Your task to perform on an android device: change the clock style Image 0: 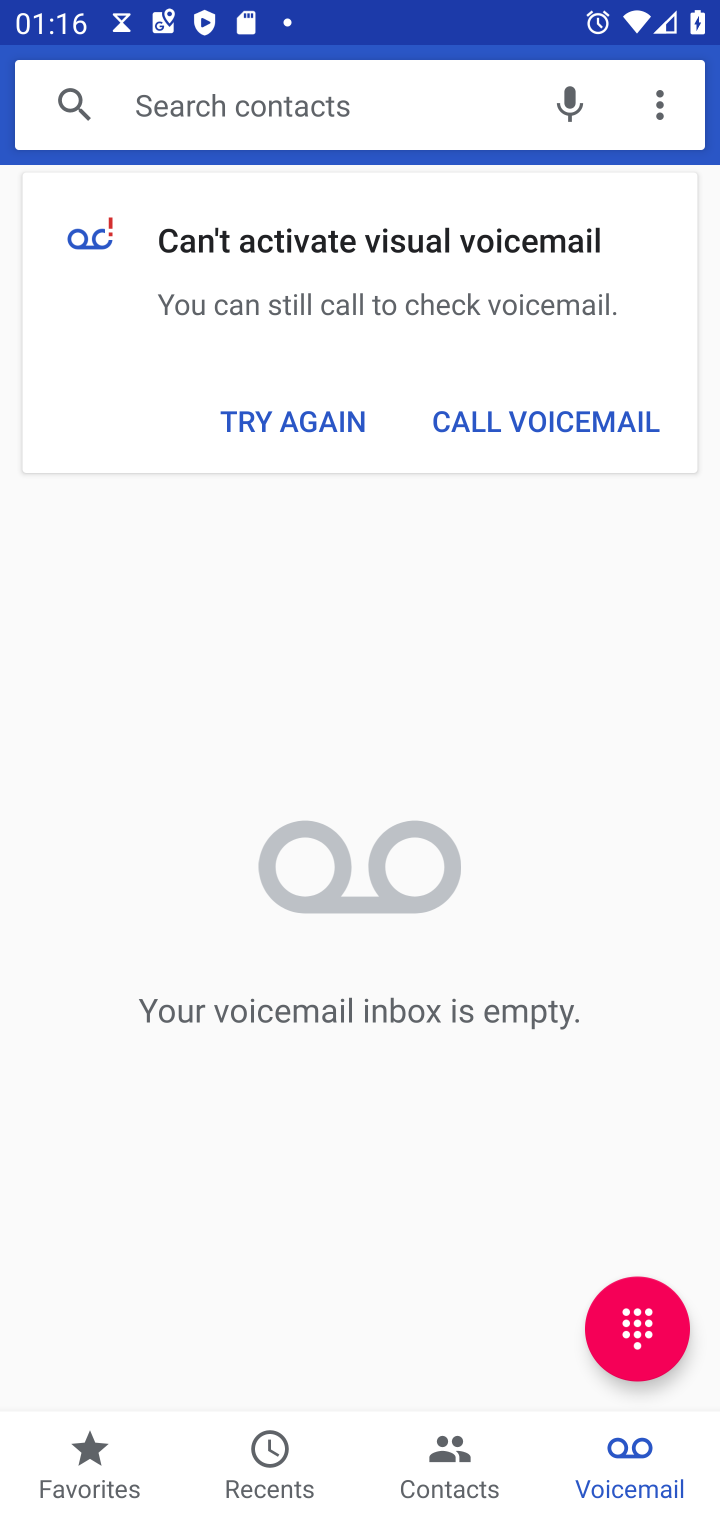
Step 0: press home button
Your task to perform on an android device: change the clock style Image 1: 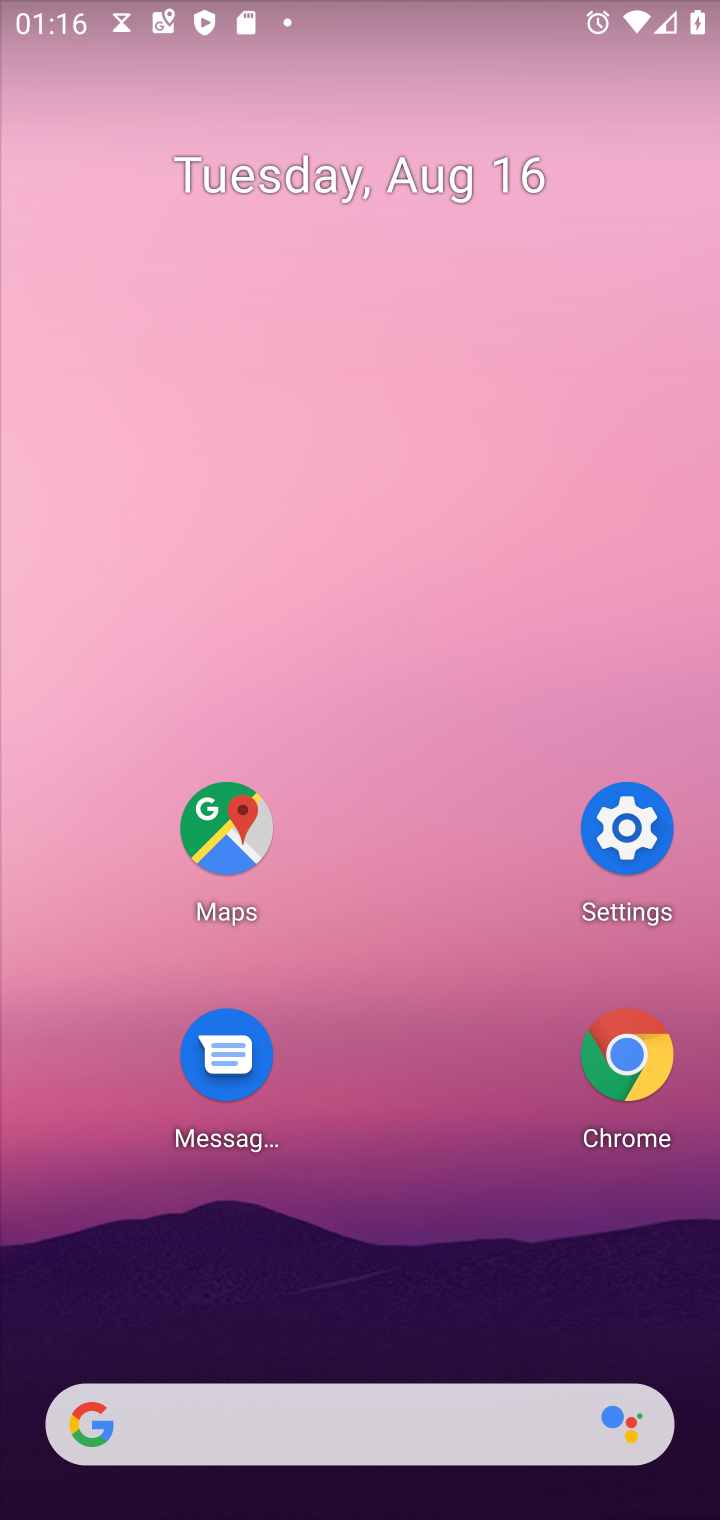
Step 1: drag from (375, 1408) to (591, 363)
Your task to perform on an android device: change the clock style Image 2: 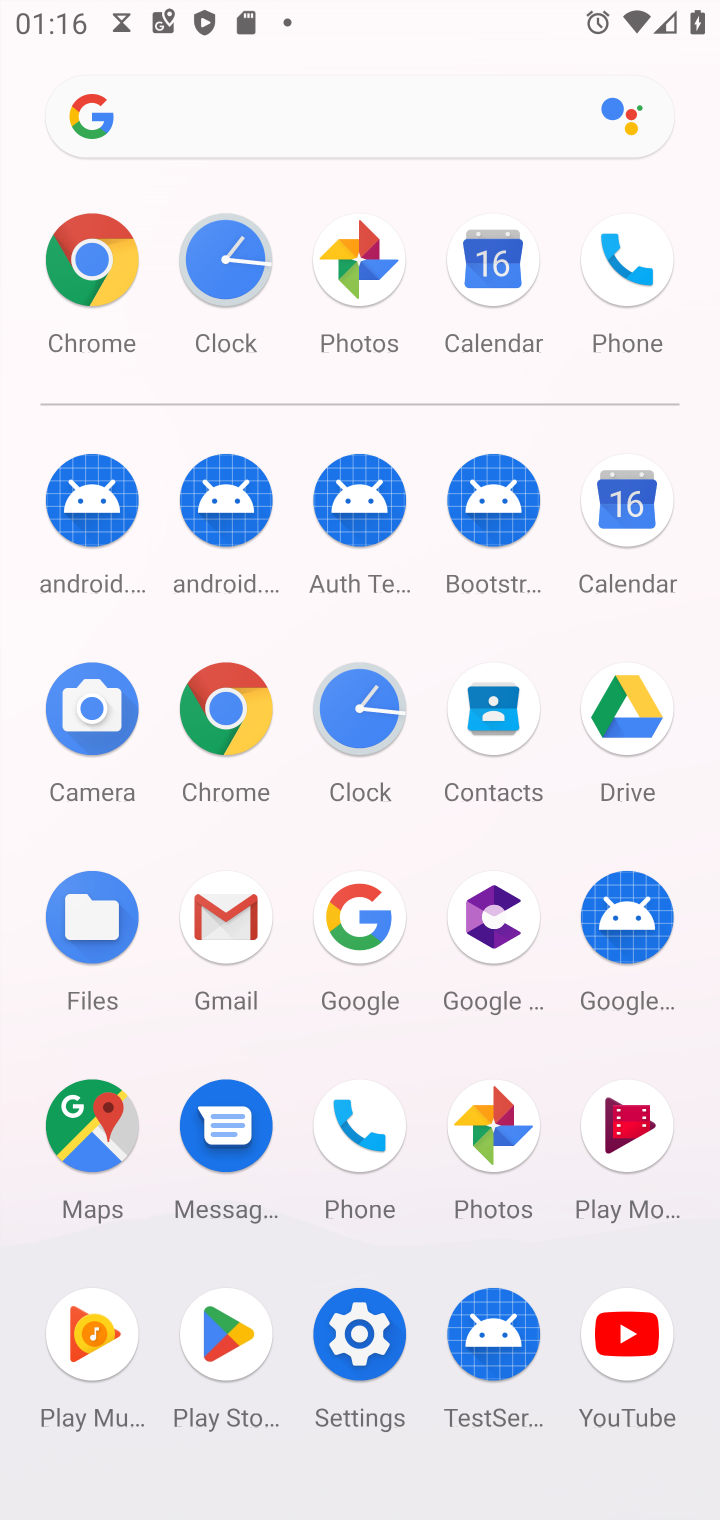
Step 2: click (365, 719)
Your task to perform on an android device: change the clock style Image 3: 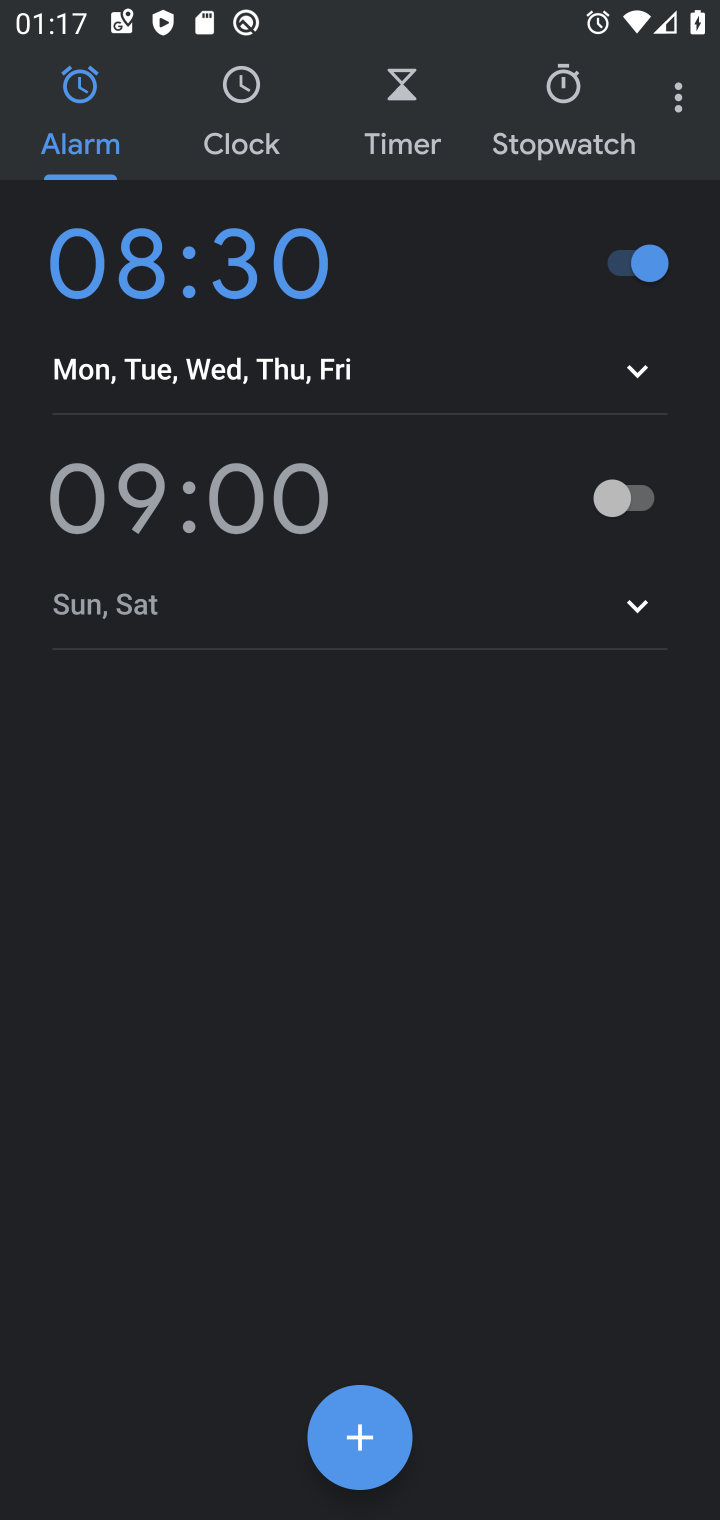
Step 3: click (675, 102)
Your task to perform on an android device: change the clock style Image 4: 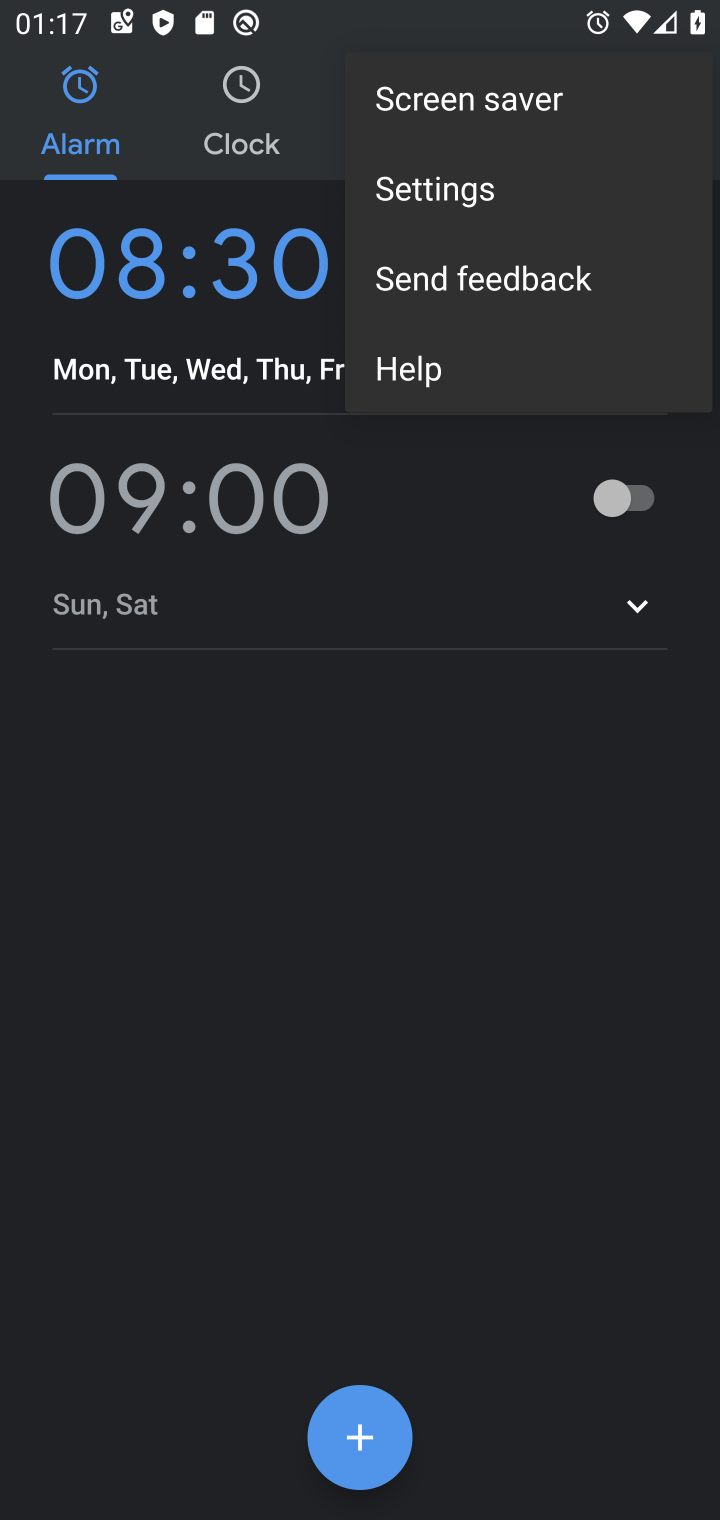
Step 4: click (502, 190)
Your task to perform on an android device: change the clock style Image 5: 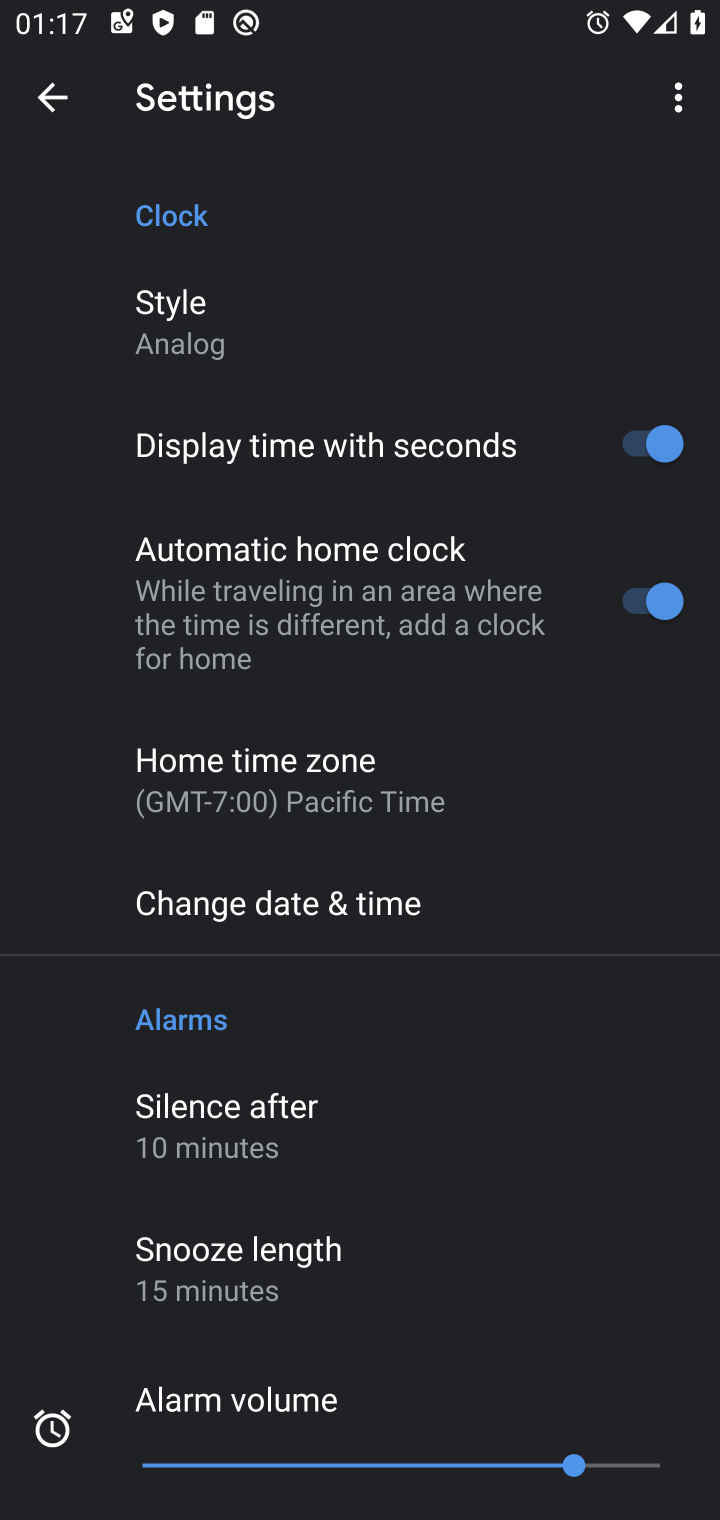
Step 5: click (223, 324)
Your task to perform on an android device: change the clock style Image 6: 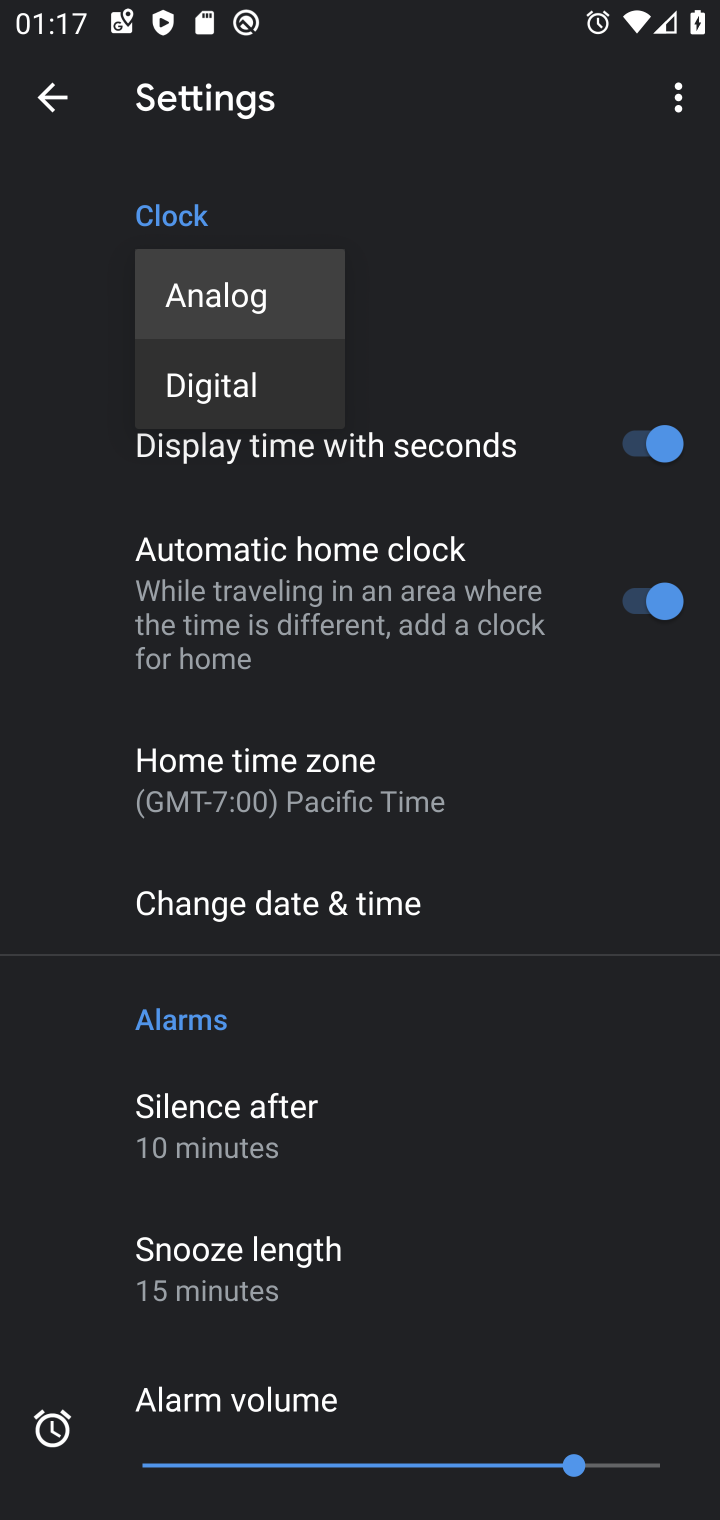
Step 6: click (203, 379)
Your task to perform on an android device: change the clock style Image 7: 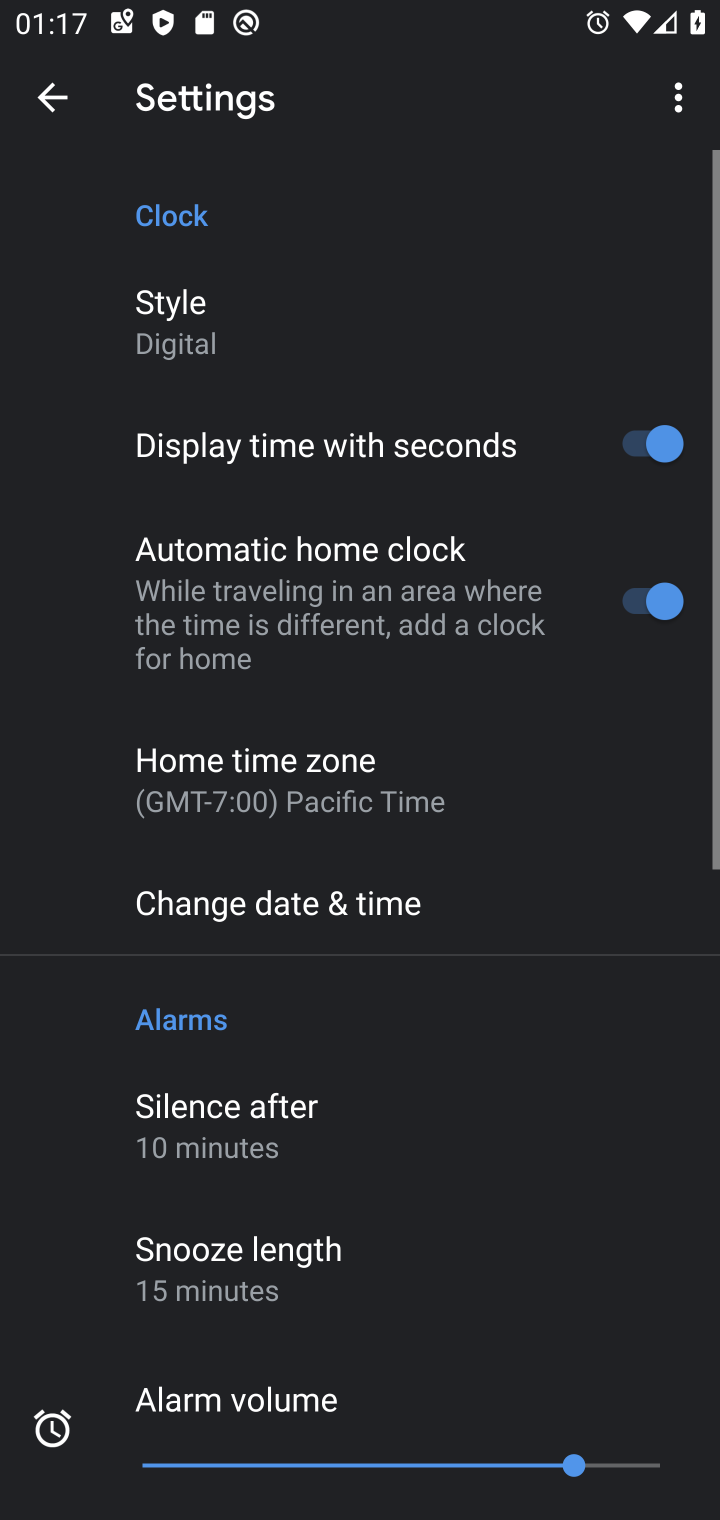
Step 7: task complete